Your task to perform on an android device: Open eBay Image 0: 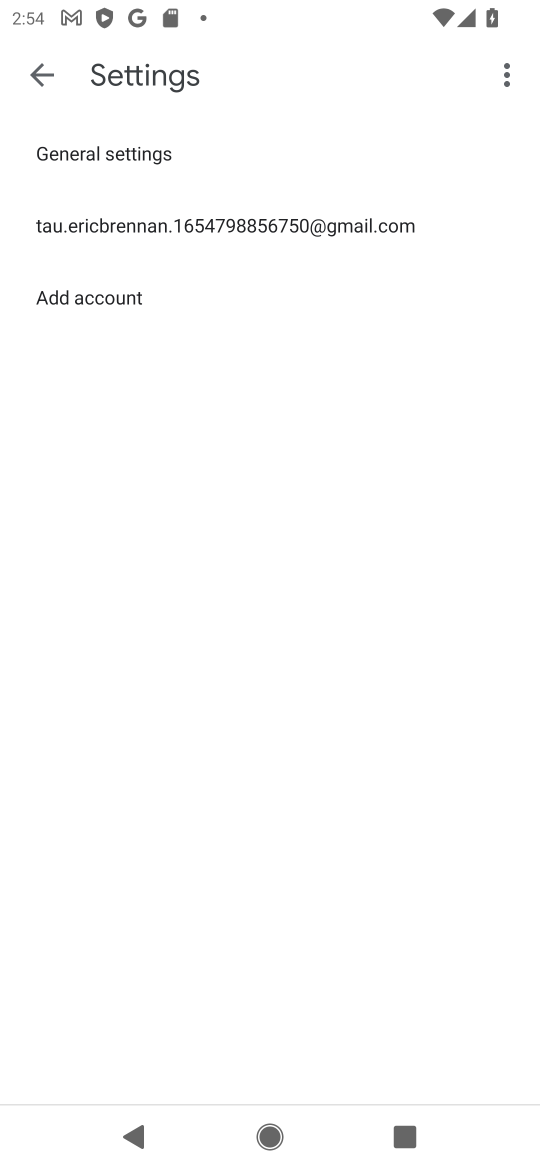
Step 0: press home button
Your task to perform on an android device: Open eBay Image 1: 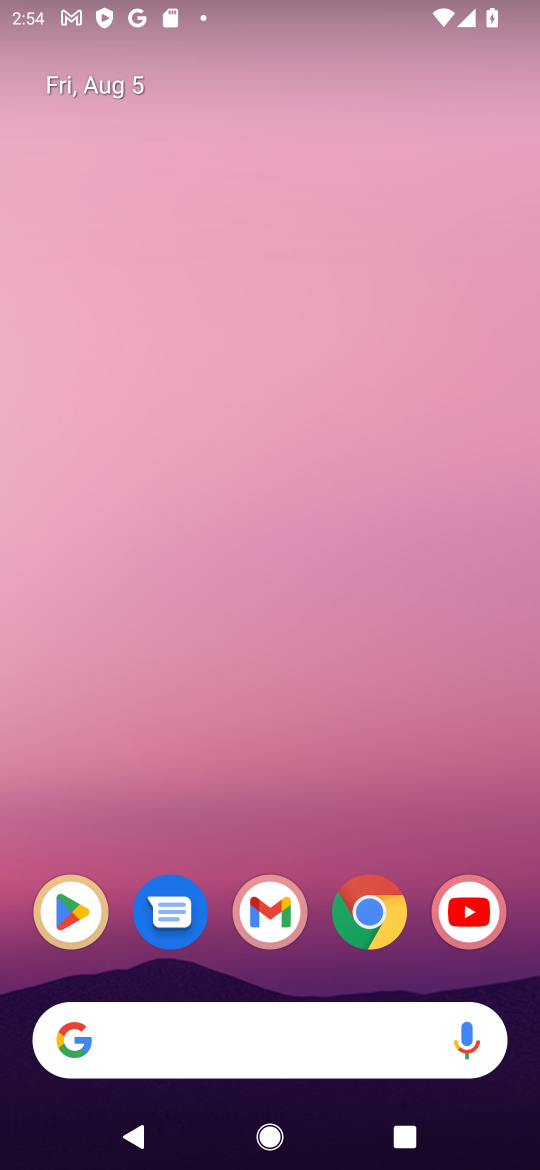
Step 1: click (377, 923)
Your task to perform on an android device: Open eBay Image 2: 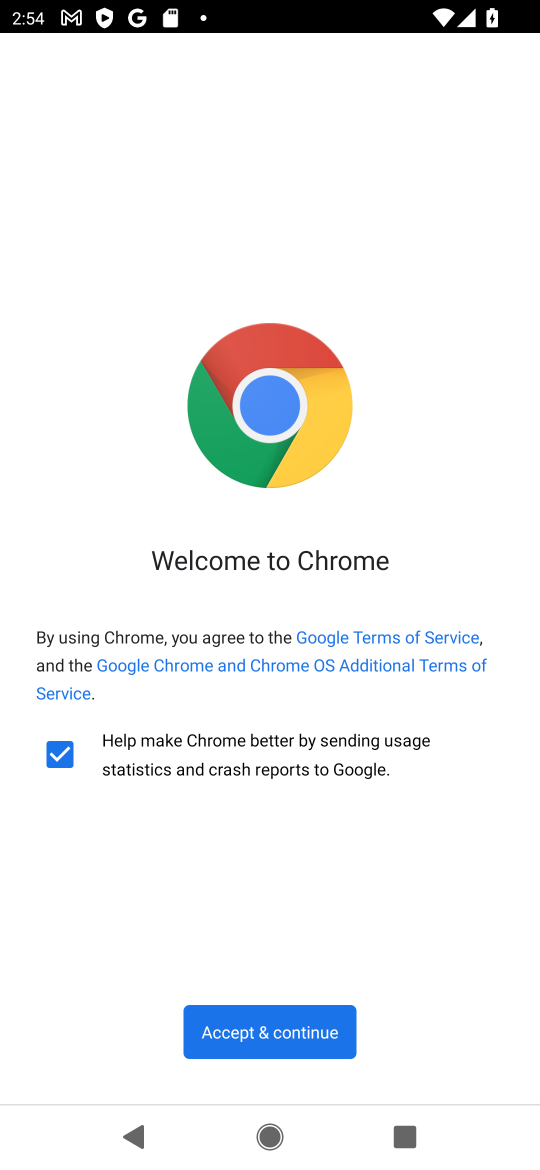
Step 2: click (306, 1051)
Your task to perform on an android device: Open eBay Image 3: 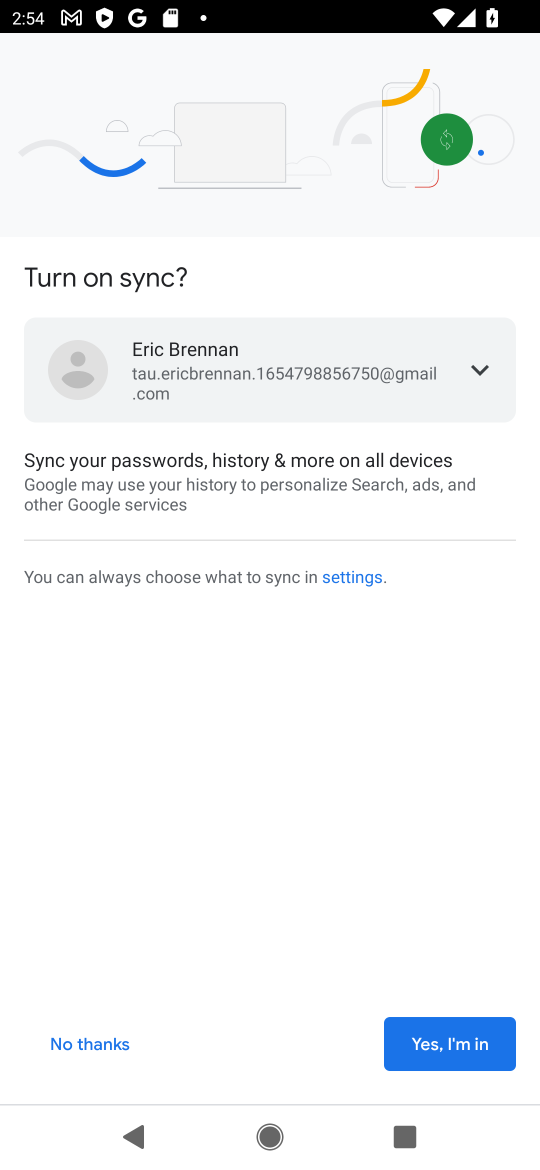
Step 3: click (445, 1037)
Your task to perform on an android device: Open eBay Image 4: 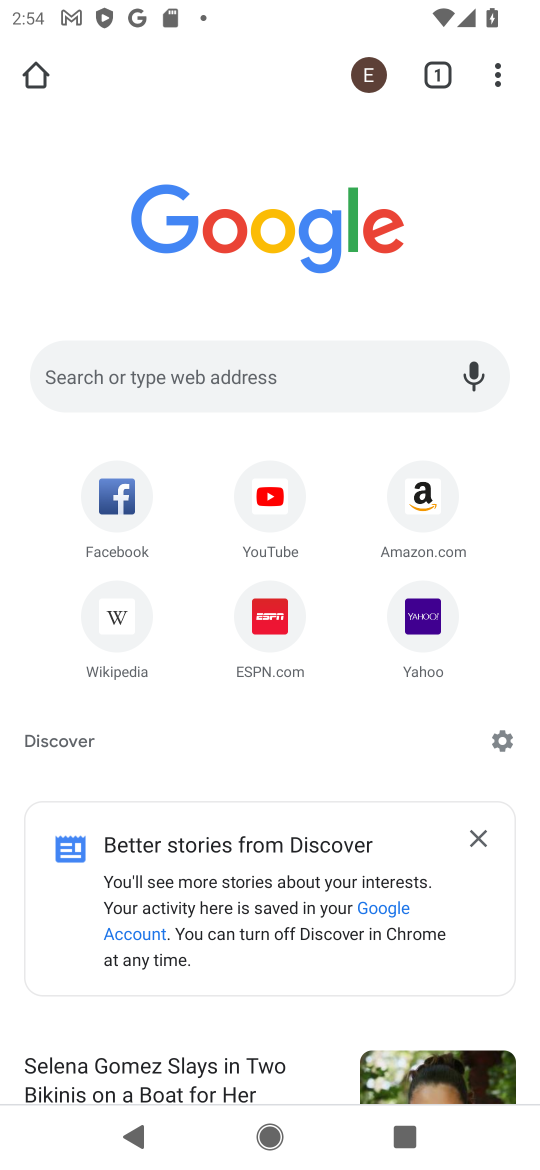
Step 4: click (356, 363)
Your task to perform on an android device: Open eBay Image 5: 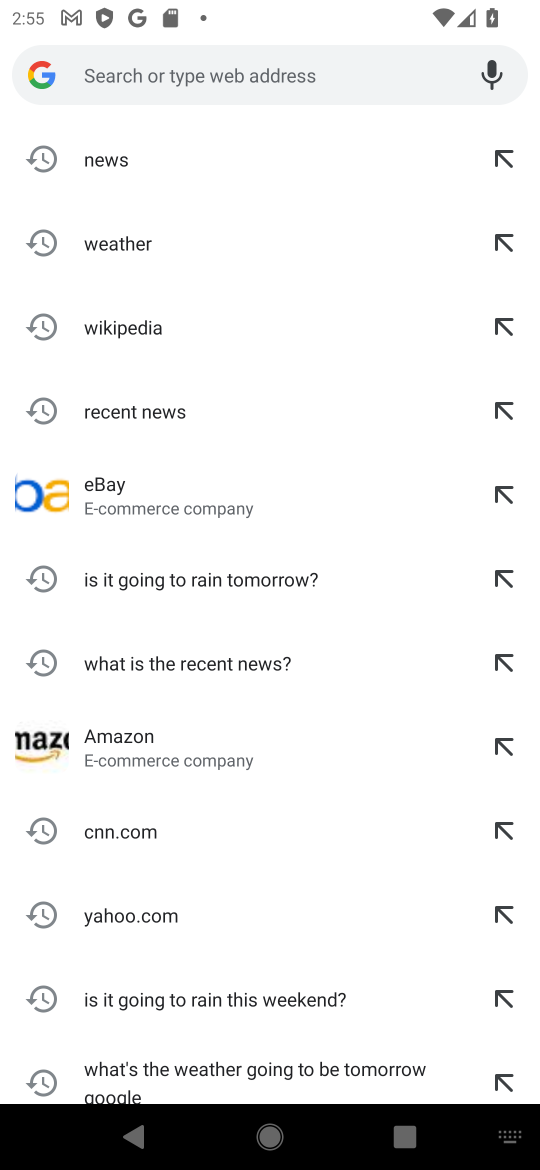
Step 5: type "ebay"
Your task to perform on an android device: Open eBay Image 6: 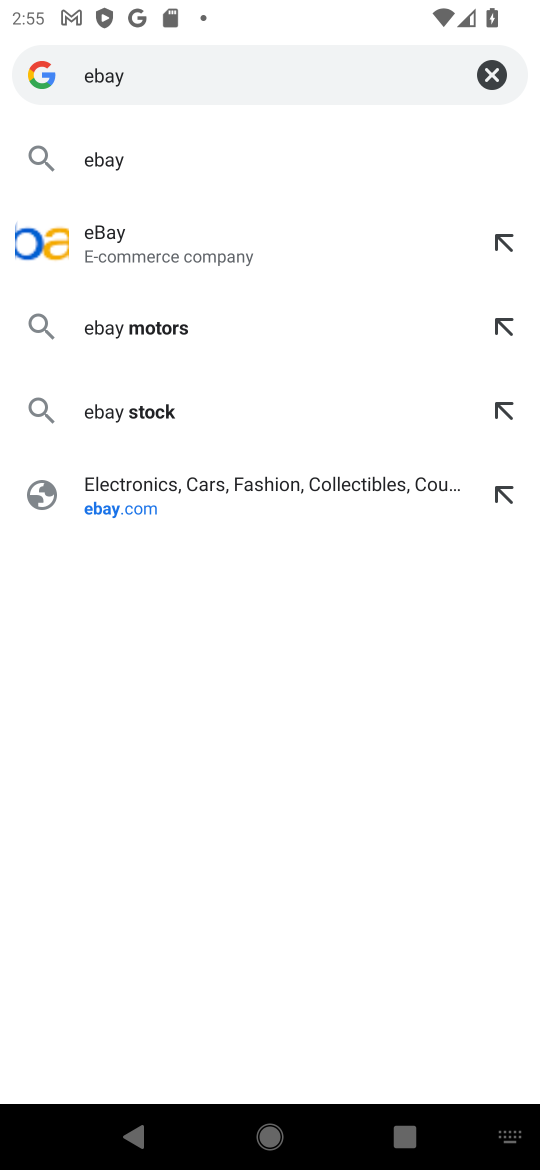
Step 6: click (123, 171)
Your task to perform on an android device: Open eBay Image 7: 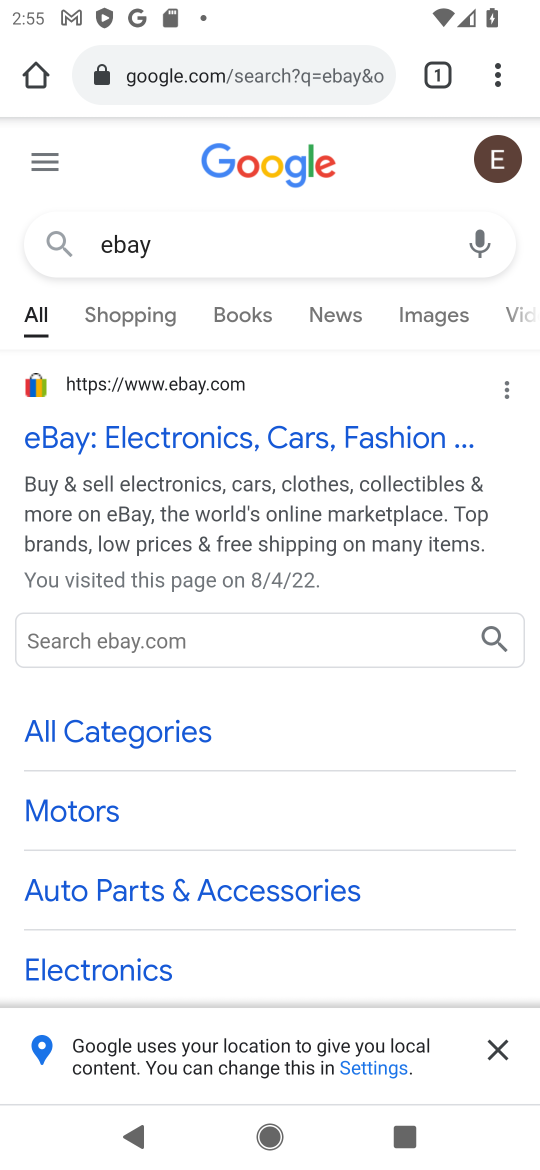
Step 7: task complete